Your task to perform on an android device: Search for pizza restaurants on Maps Image 0: 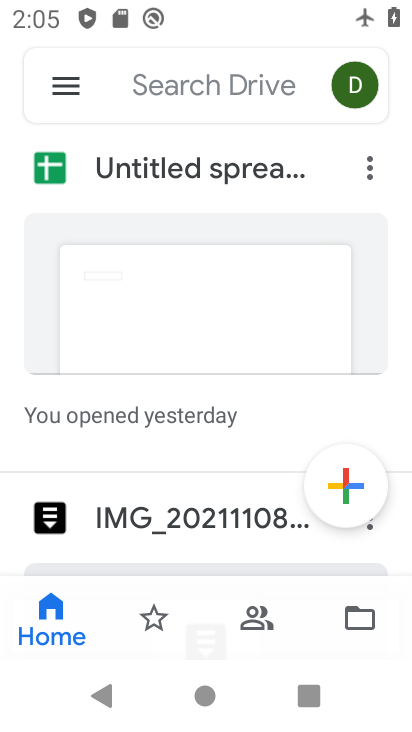
Step 0: press home button
Your task to perform on an android device: Search for pizza restaurants on Maps Image 1: 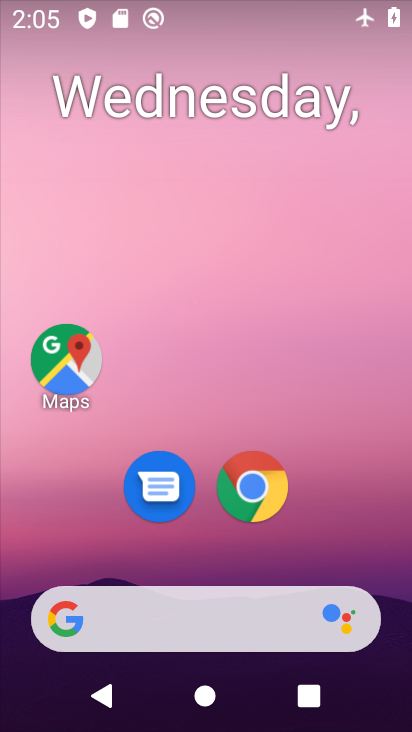
Step 1: click (79, 352)
Your task to perform on an android device: Search for pizza restaurants on Maps Image 2: 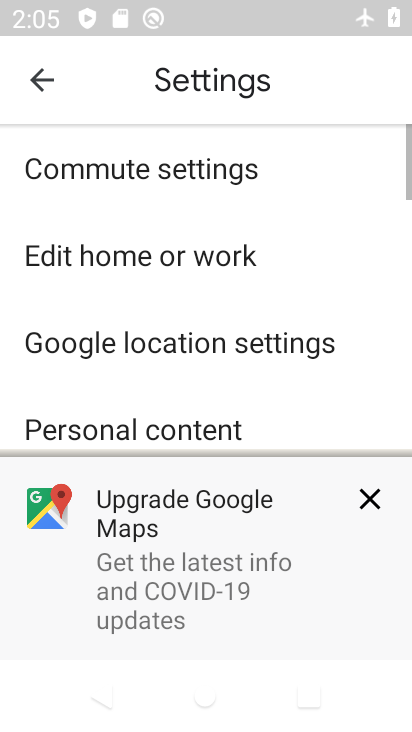
Step 2: click (52, 87)
Your task to perform on an android device: Search for pizza restaurants on Maps Image 3: 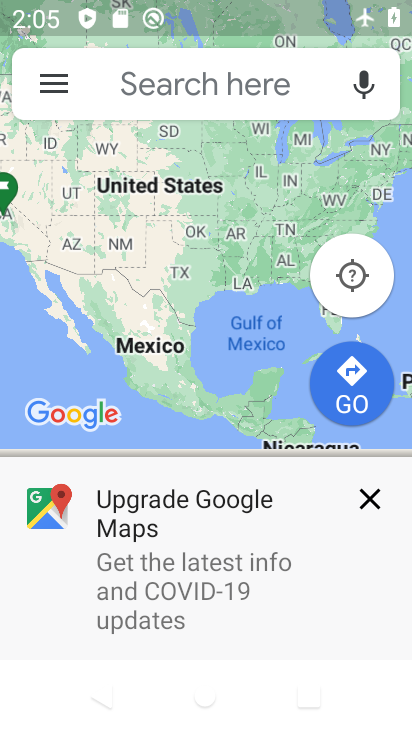
Step 3: click (217, 63)
Your task to perform on an android device: Search for pizza restaurants on Maps Image 4: 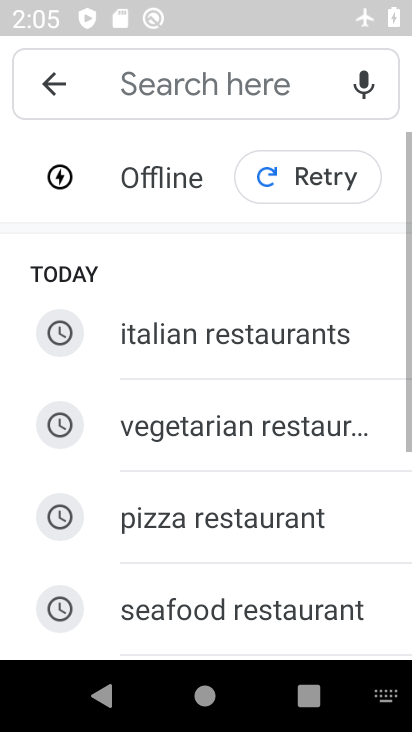
Step 4: click (204, 524)
Your task to perform on an android device: Search for pizza restaurants on Maps Image 5: 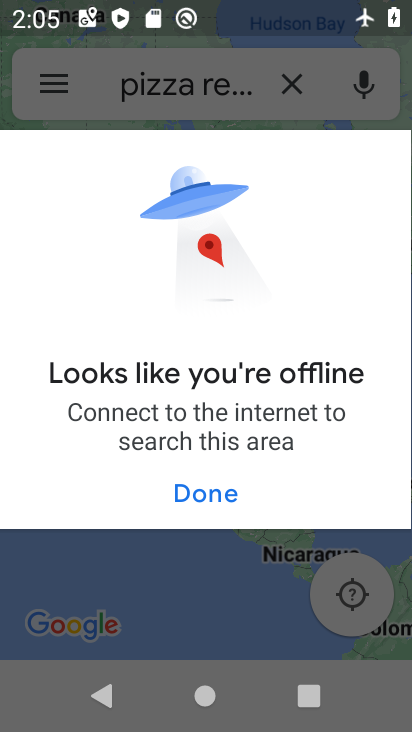
Step 5: task complete